Your task to perform on an android device: change text size in settings app Image 0: 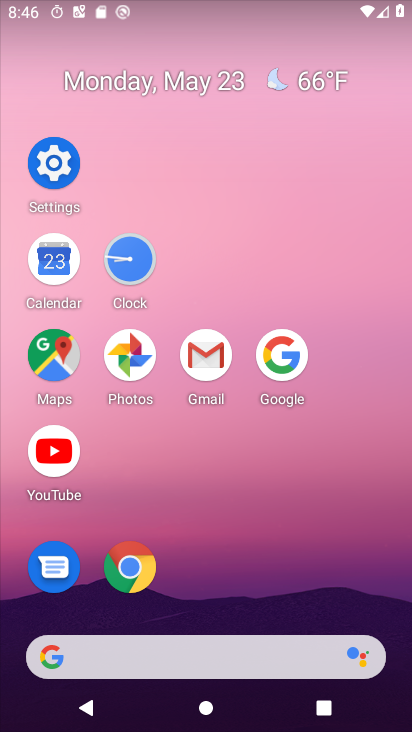
Step 0: click (44, 160)
Your task to perform on an android device: change text size in settings app Image 1: 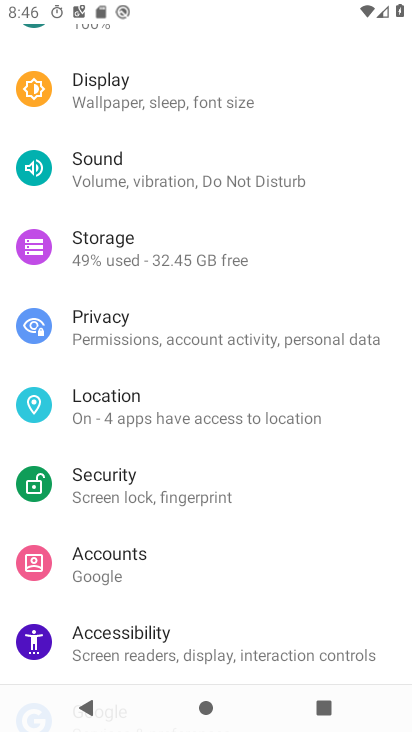
Step 1: click (137, 107)
Your task to perform on an android device: change text size in settings app Image 2: 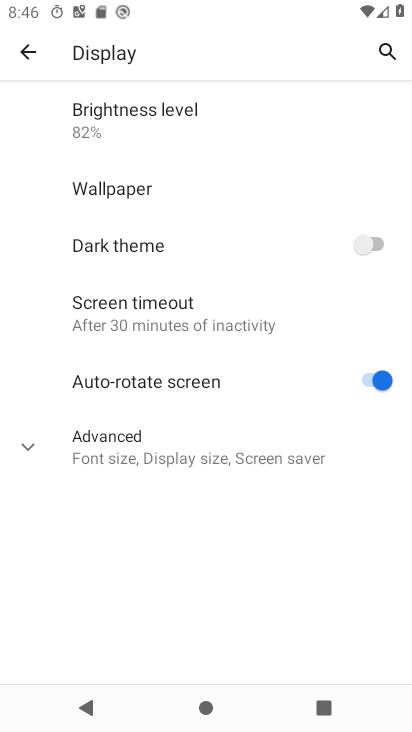
Step 2: click (196, 434)
Your task to perform on an android device: change text size in settings app Image 3: 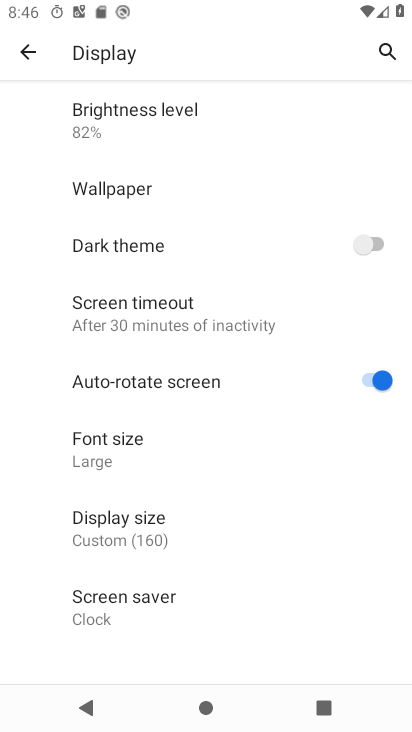
Step 3: click (154, 450)
Your task to perform on an android device: change text size in settings app Image 4: 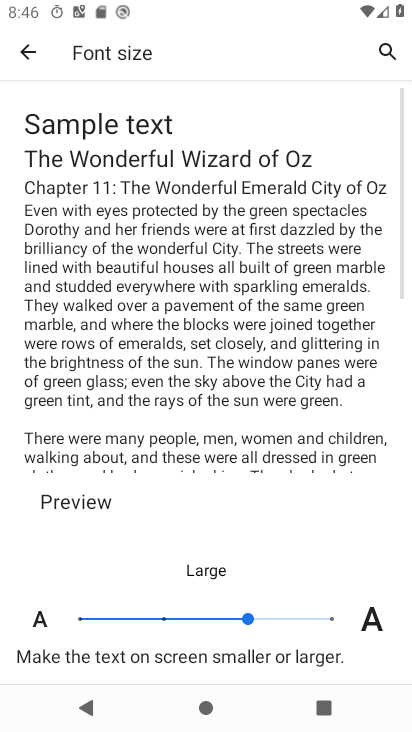
Step 4: click (171, 617)
Your task to perform on an android device: change text size in settings app Image 5: 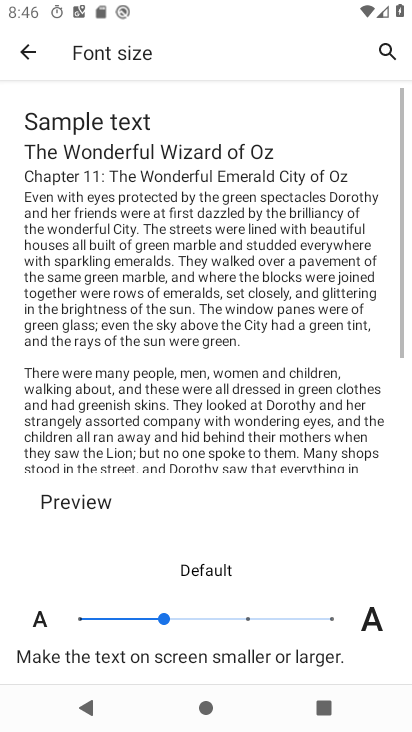
Step 5: task complete